Your task to perform on an android device: Go to internet settings Image 0: 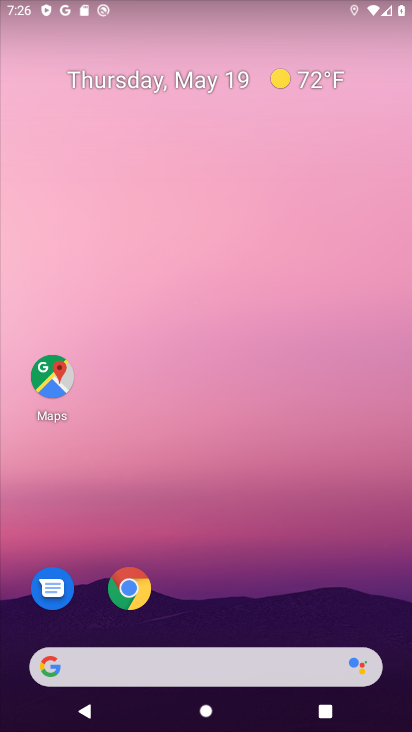
Step 0: drag from (336, 628) to (293, 0)
Your task to perform on an android device: Go to internet settings Image 1: 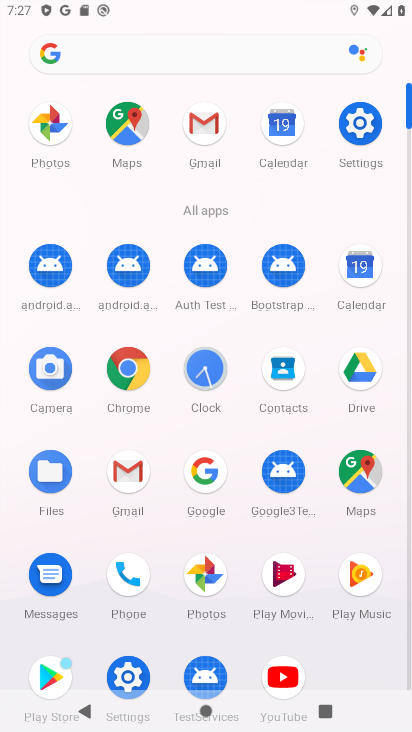
Step 1: click (124, 664)
Your task to perform on an android device: Go to internet settings Image 2: 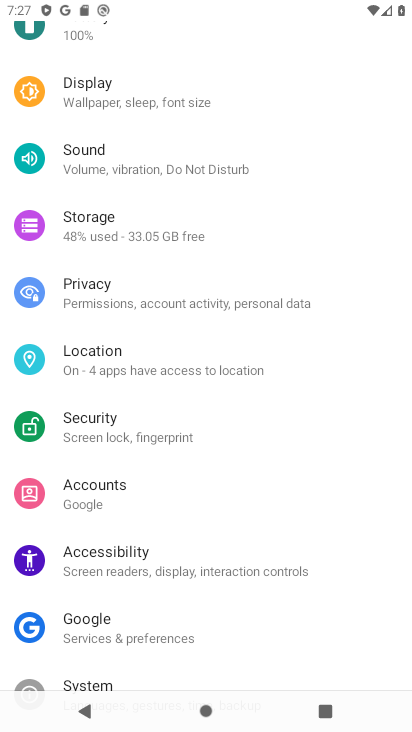
Step 2: drag from (205, 224) to (177, 694)
Your task to perform on an android device: Go to internet settings Image 3: 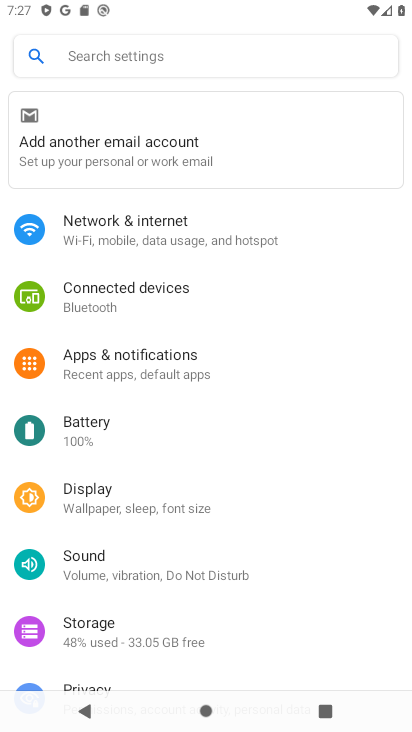
Step 3: click (154, 234)
Your task to perform on an android device: Go to internet settings Image 4: 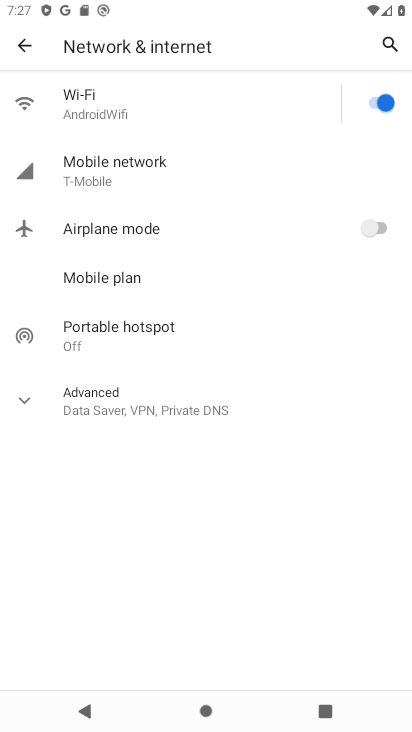
Step 4: task complete